Your task to perform on an android device: Search for vegetarian restaurants on Maps Image 0: 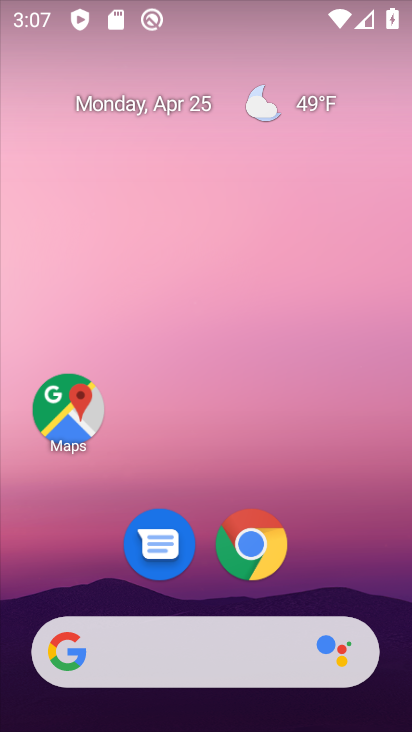
Step 0: click (71, 411)
Your task to perform on an android device: Search for vegetarian restaurants on Maps Image 1: 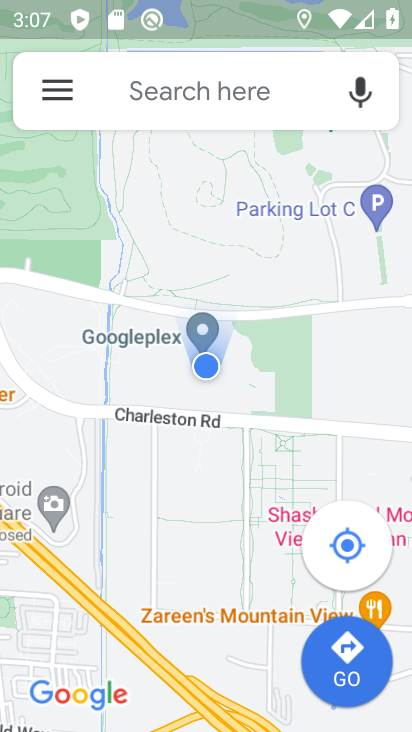
Step 1: click (203, 88)
Your task to perform on an android device: Search for vegetarian restaurants on Maps Image 2: 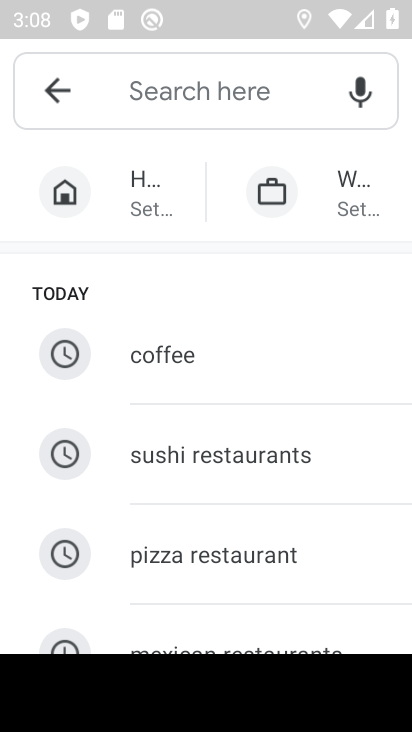
Step 2: type "vegetarian restaurants"
Your task to perform on an android device: Search for vegetarian restaurants on Maps Image 3: 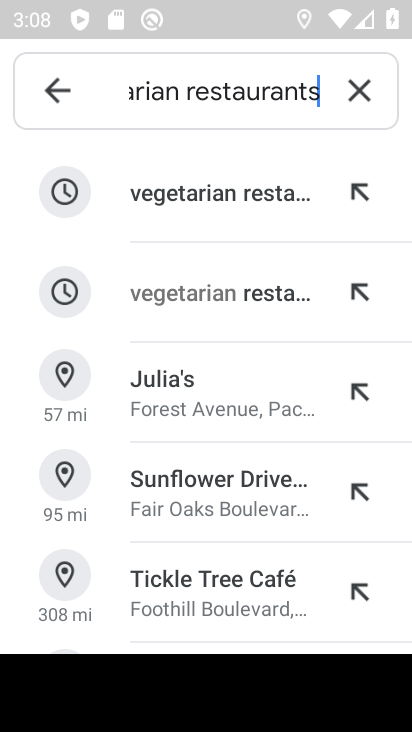
Step 3: click (214, 200)
Your task to perform on an android device: Search for vegetarian restaurants on Maps Image 4: 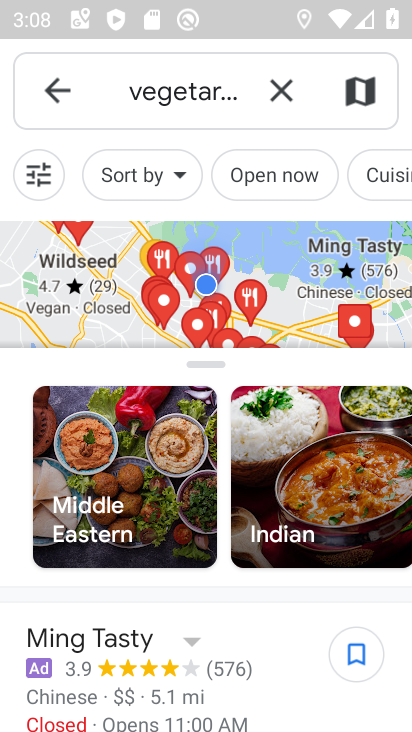
Step 4: task complete